Your task to perform on an android device: Play the last video I watched on Youtube Image 0: 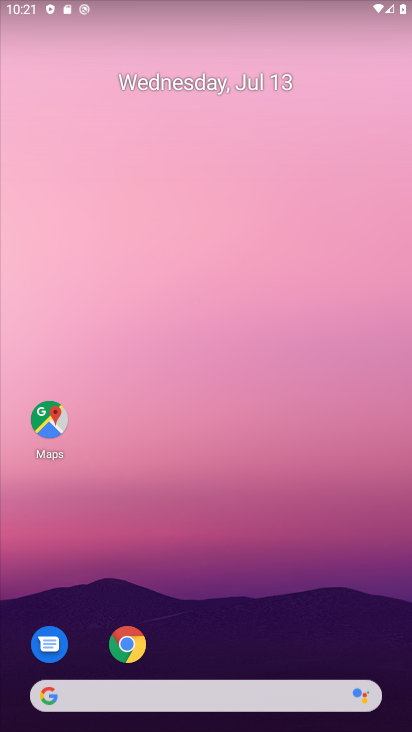
Step 0: drag from (228, 574) to (175, 58)
Your task to perform on an android device: Play the last video I watched on Youtube Image 1: 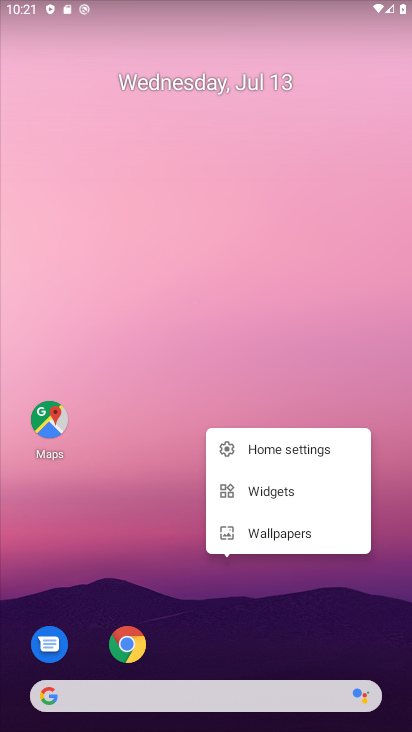
Step 1: click (161, 572)
Your task to perform on an android device: Play the last video I watched on Youtube Image 2: 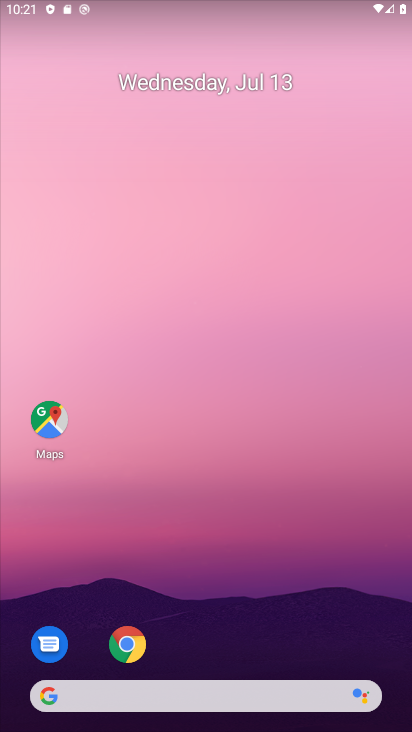
Step 2: drag from (298, 565) to (207, 18)
Your task to perform on an android device: Play the last video I watched on Youtube Image 3: 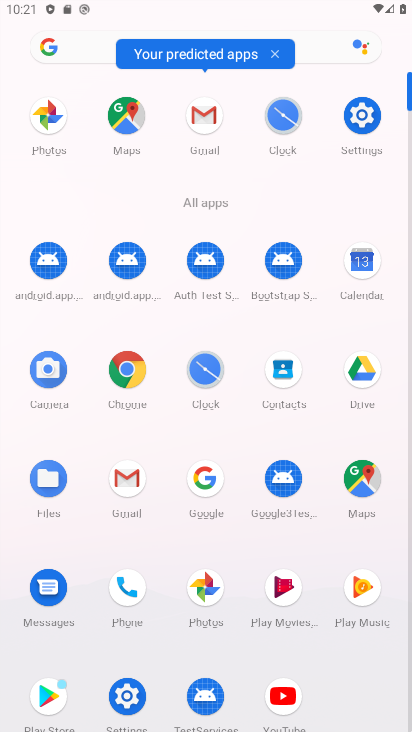
Step 3: click (280, 689)
Your task to perform on an android device: Play the last video I watched on Youtube Image 4: 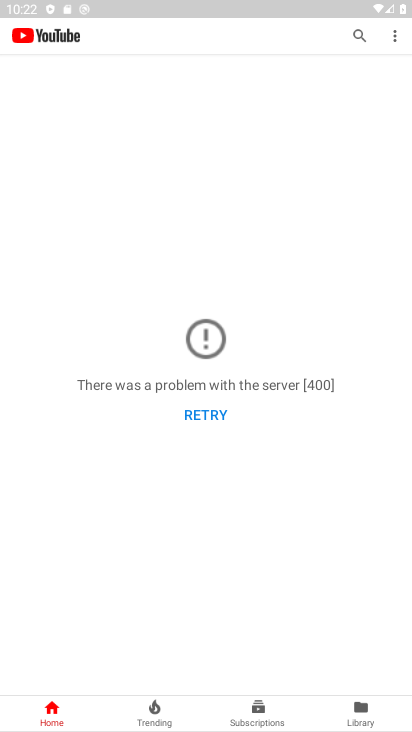
Step 4: click (358, 708)
Your task to perform on an android device: Play the last video I watched on Youtube Image 5: 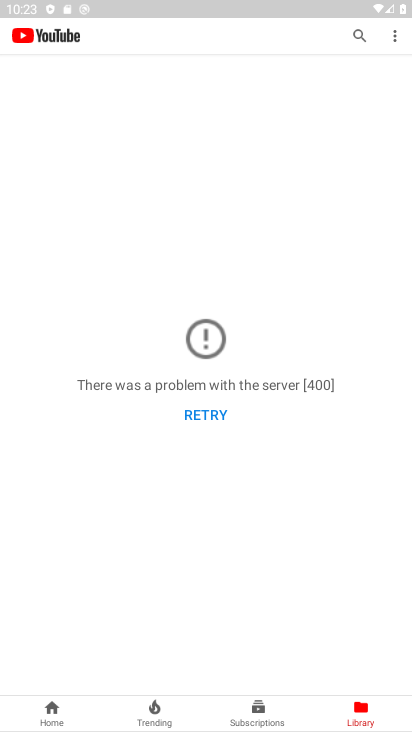
Step 5: task complete